Your task to perform on an android device: change text size in settings app Image 0: 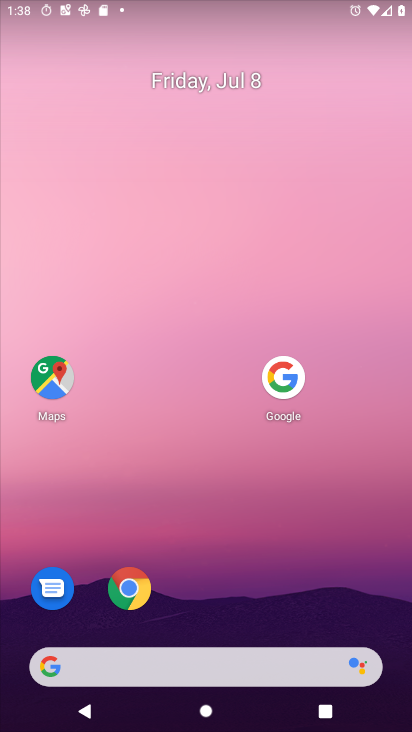
Step 0: drag from (147, 663) to (314, 117)
Your task to perform on an android device: change text size in settings app Image 1: 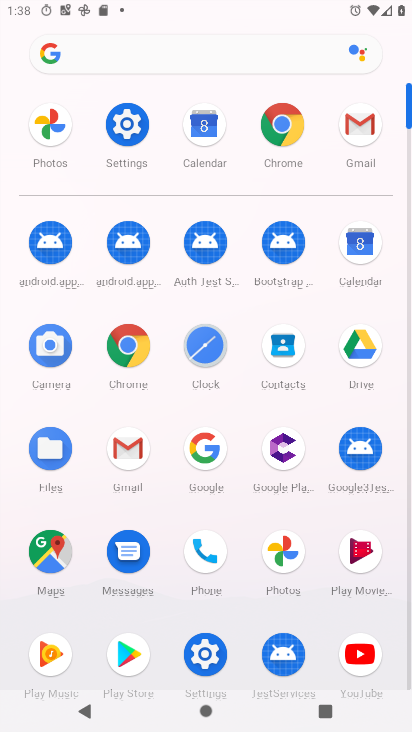
Step 1: click (122, 133)
Your task to perform on an android device: change text size in settings app Image 2: 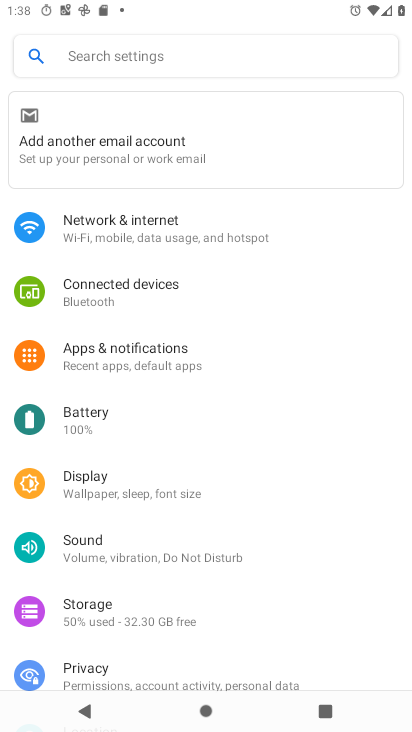
Step 2: click (177, 485)
Your task to perform on an android device: change text size in settings app Image 3: 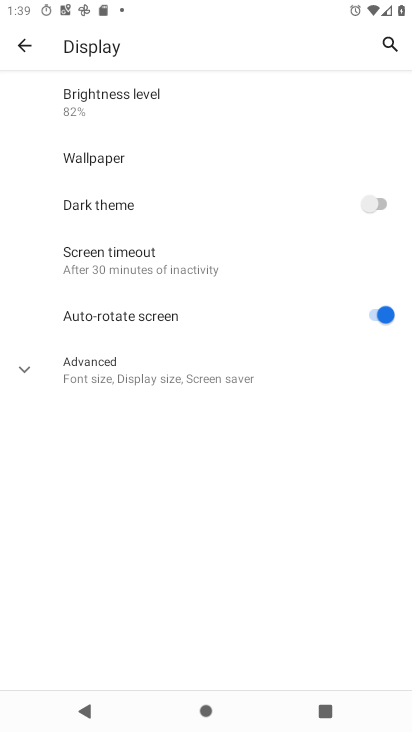
Step 3: click (140, 369)
Your task to perform on an android device: change text size in settings app Image 4: 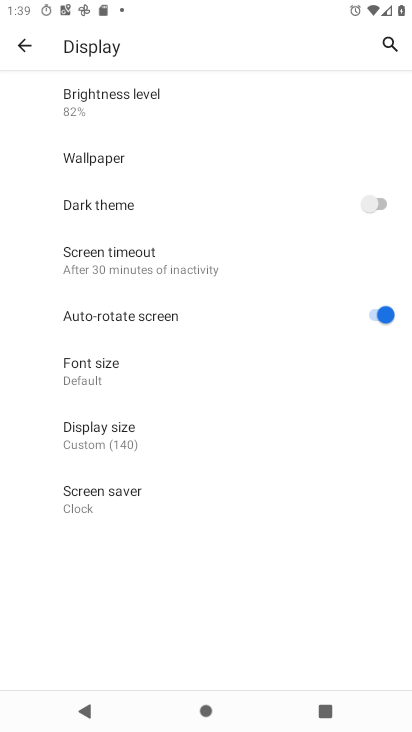
Step 4: click (108, 377)
Your task to perform on an android device: change text size in settings app Image 5: 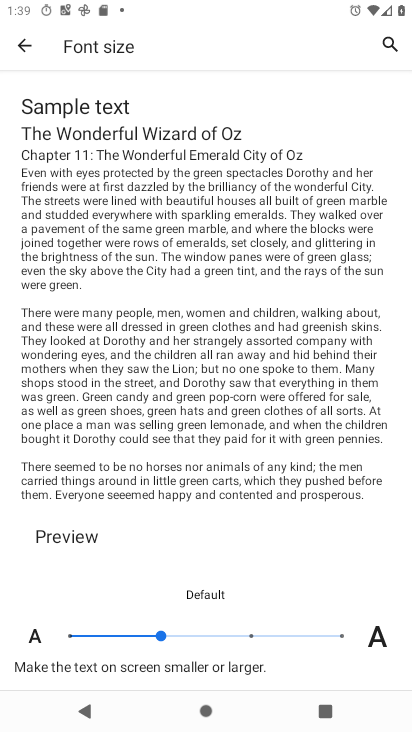
Step 5: click (89, 376)
Your task to perform on an android device: change text size in settings app Image 6: 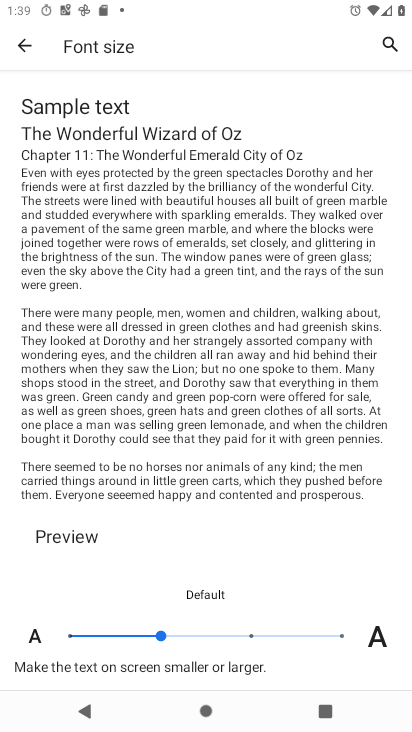
Step 6: click (69, 635)
Your task to perform on an android device: change text size in settings app Image 7: 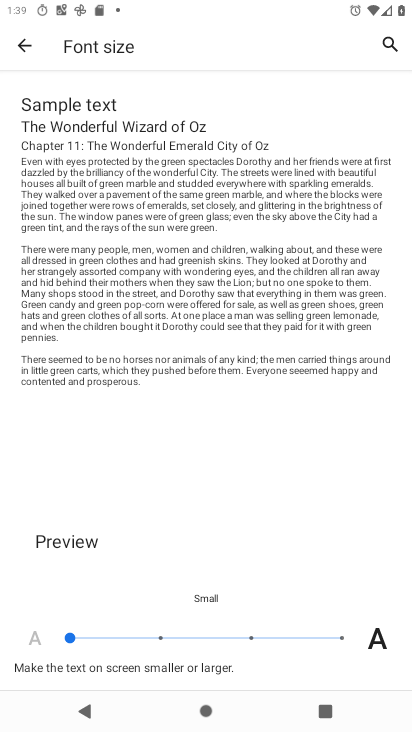
Step 7: task complete